Your task to perform on an android device: change keyboard looks Image 0: 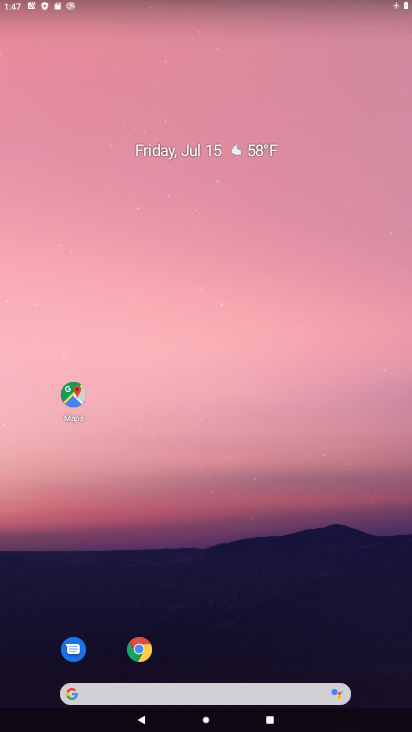
Step 0: drag from (204, 677) to (282, 59)
Your task to perform on an android device: change keyboard looks Image 1: 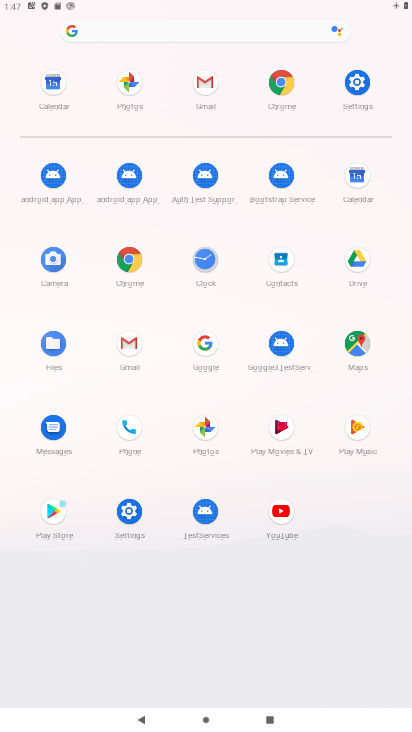
Step 1: click (364, 84)
Your task to perform on an android device: change keyboard looks Image 2: 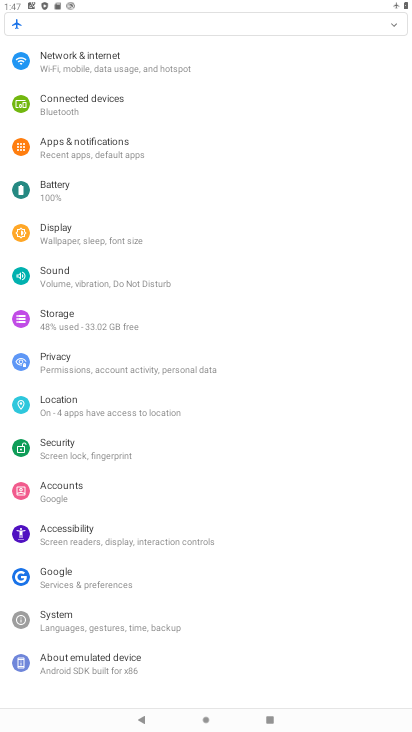
Step 2: click (107, 614)
Your task to perform on an android device: change keyboard looks Image 3: 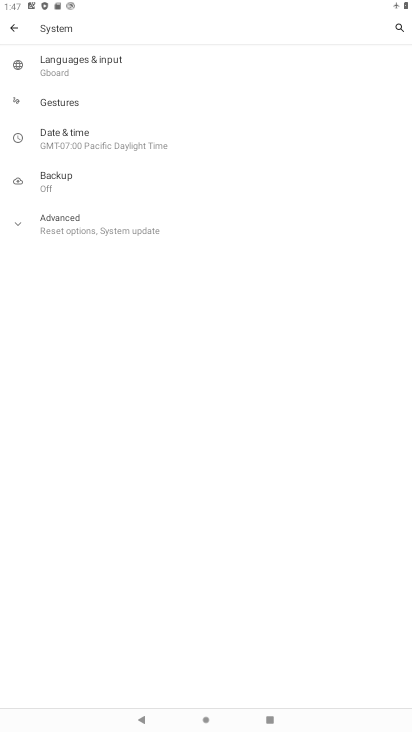
Step 3: click (115, 68)
Your task to perform on an android device: change keyboard looks Image 4: 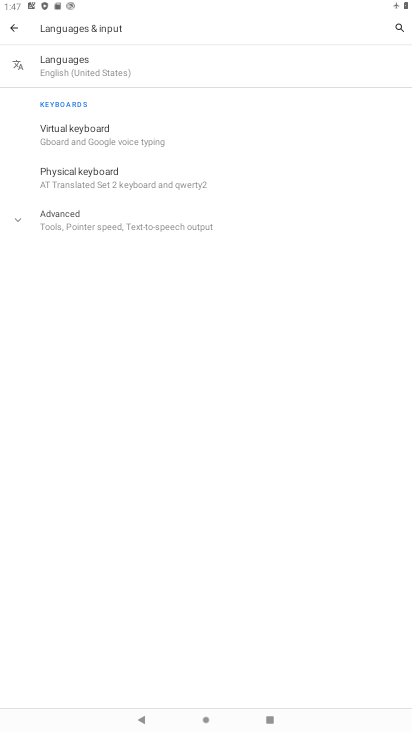
Step 4: click (89, 132)
Your task to perform on an android device: change keyboard looks Image 5: 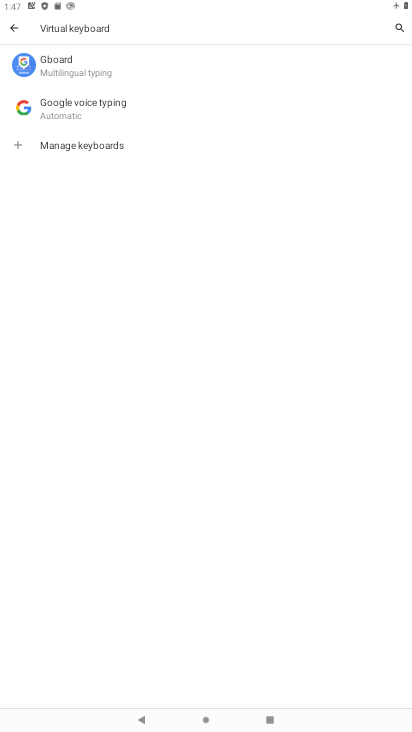
Step 5: click (114, 63)
Your task to perform on an android device: change keyboard looks Image 6: 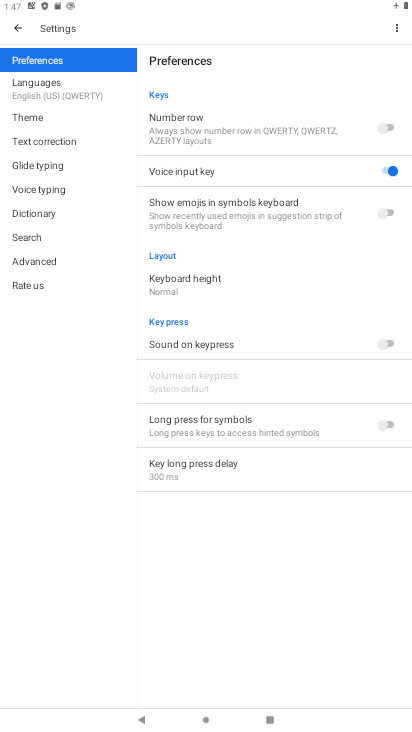
Step 6: click (47, 118)
Your task to perform on an android device: change keyboard looks Image 7: 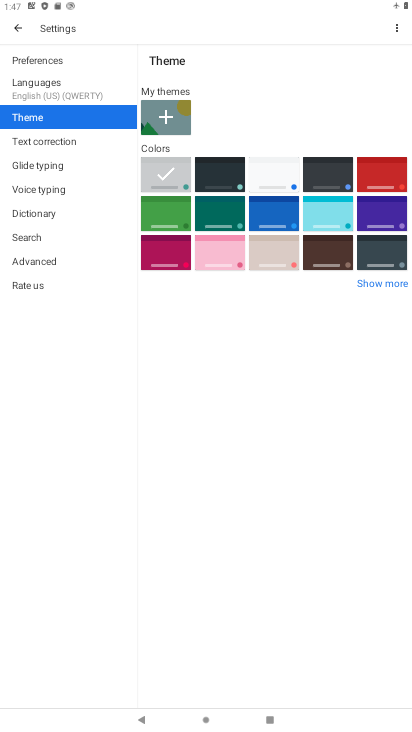
Step 7: click (336, 214)
Your task to perform on an android device: change keyboard looks Image 8: 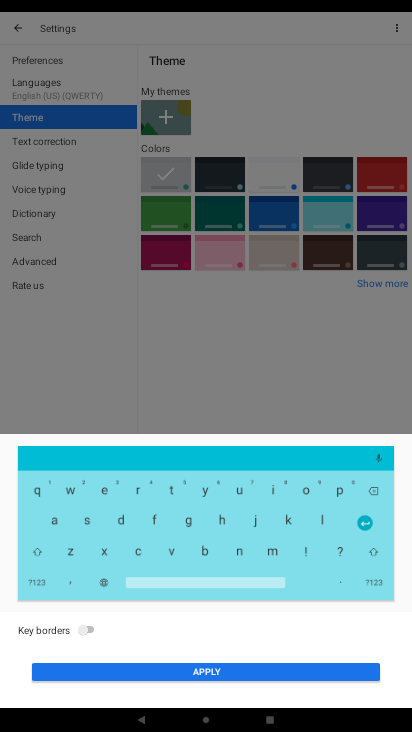
Step 8: click (240, 676)
Your task to perform on an android device: change keyboard looks Image 9: 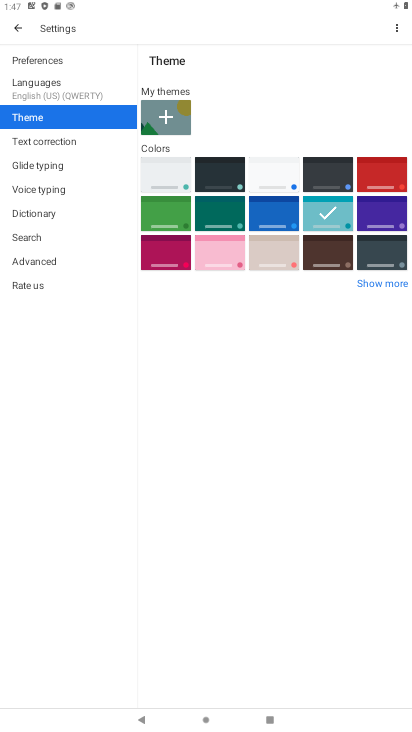
Step 9: task complete